Your task to perform on an android device: uninstall "eBay: The shopping marketplace" Image 0: 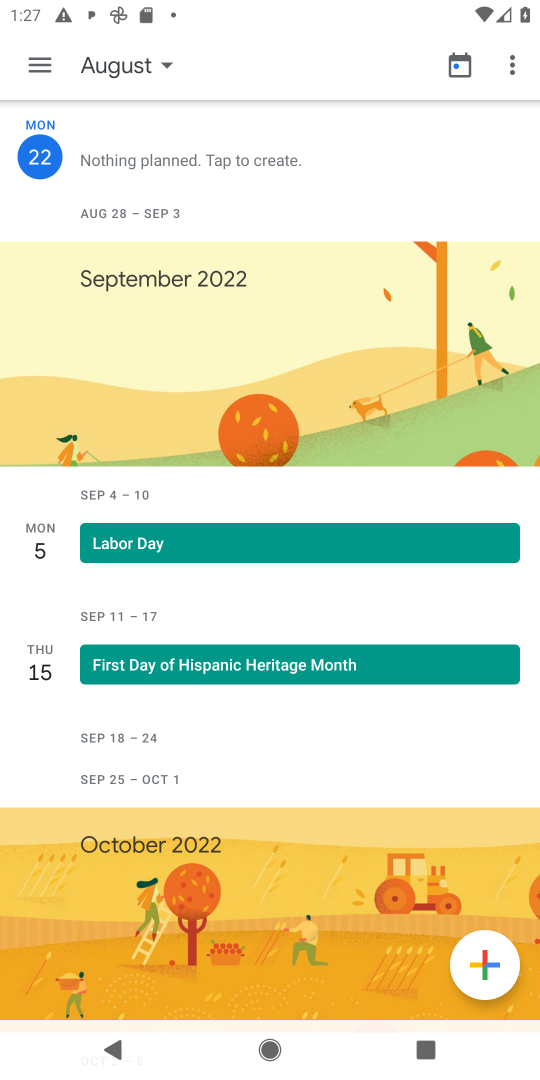
Step 0: press home button
Your task to perform on an android device: uninstall "eBay: The shopping marketplace" Image 1: 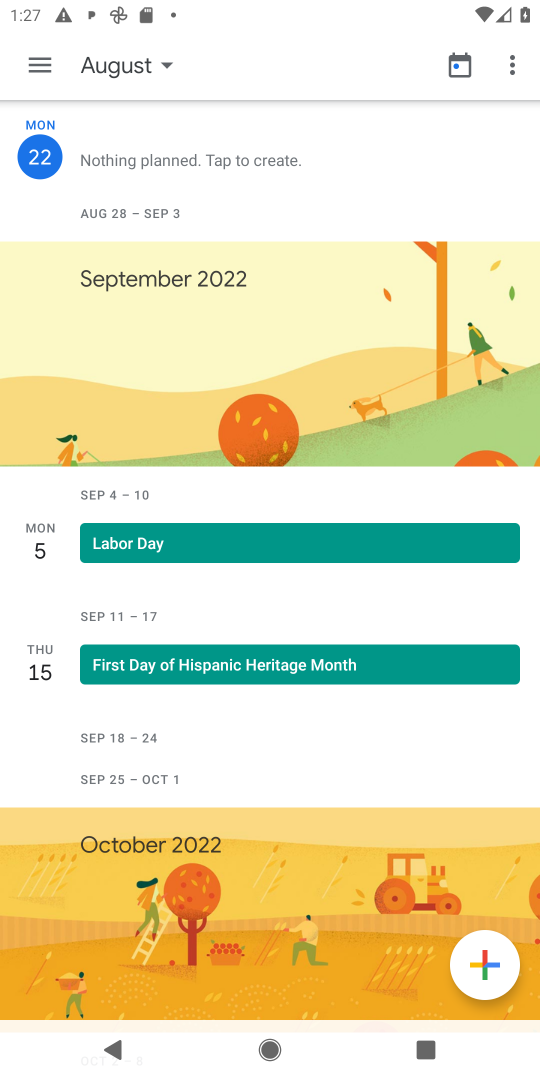
Step 1: press home button
Your task to perform on an android device: uninstall "eBay: The shopping marketplace" Image 2: 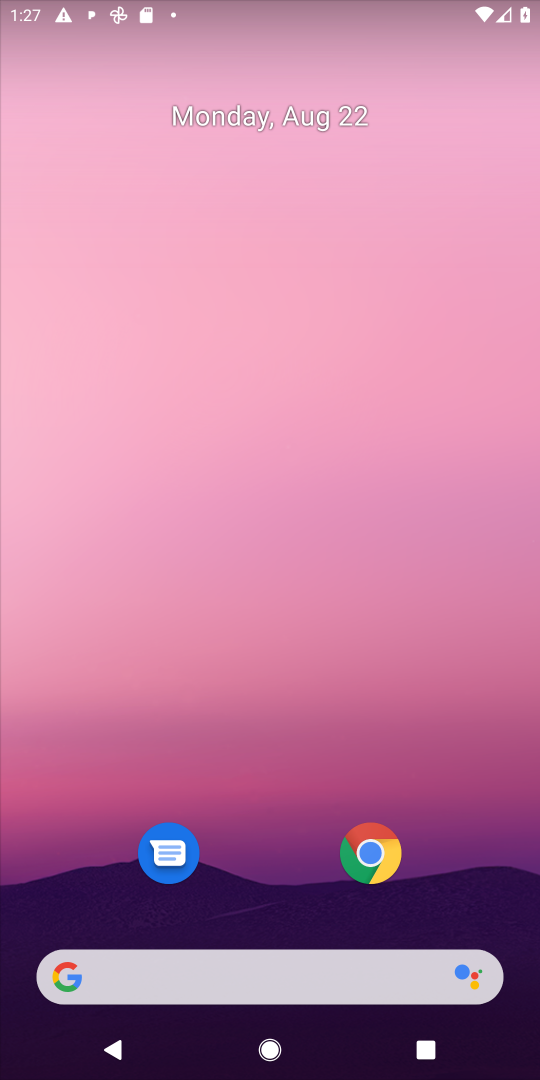
Step 2: drag from (276, 846) to (239, 230)
Your task to perform on an android device: uninstall "eBay: The shopping marketplace" Image 3: 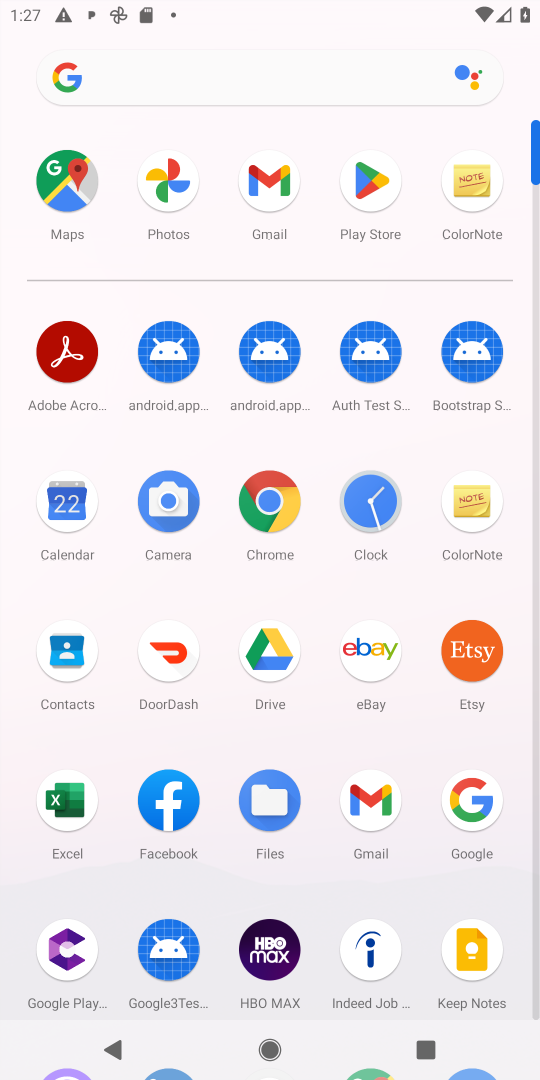
Step 3: click (367, 182)
Your task to perform on an android device: uninstall "eBay: The shopping marketplace" Image 4: 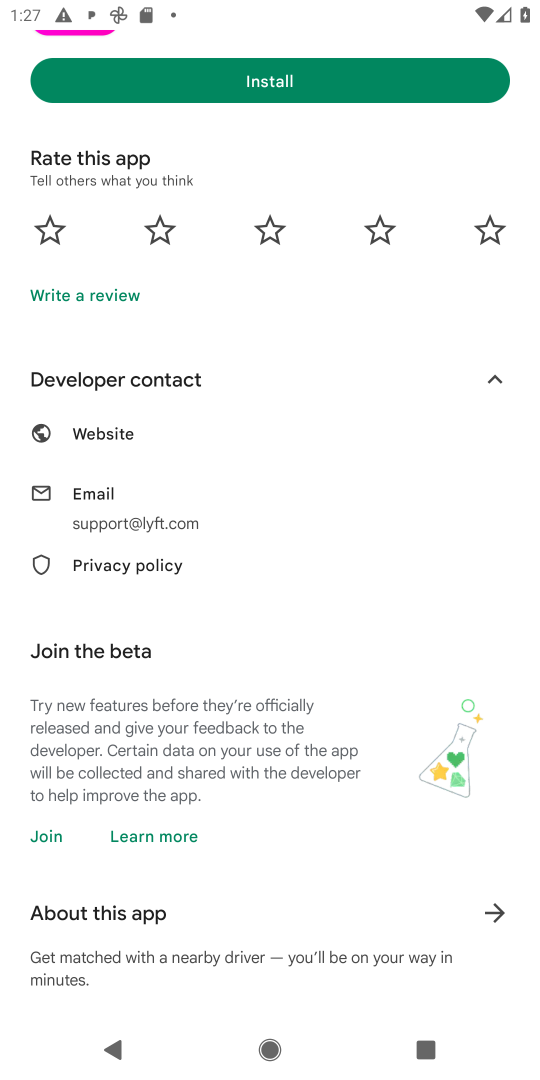
Step 4: drag from (342, 199) to (395, 753)
Your task to perform on an android device: uninstall "eBay: The shopping marketplace" Image 5: 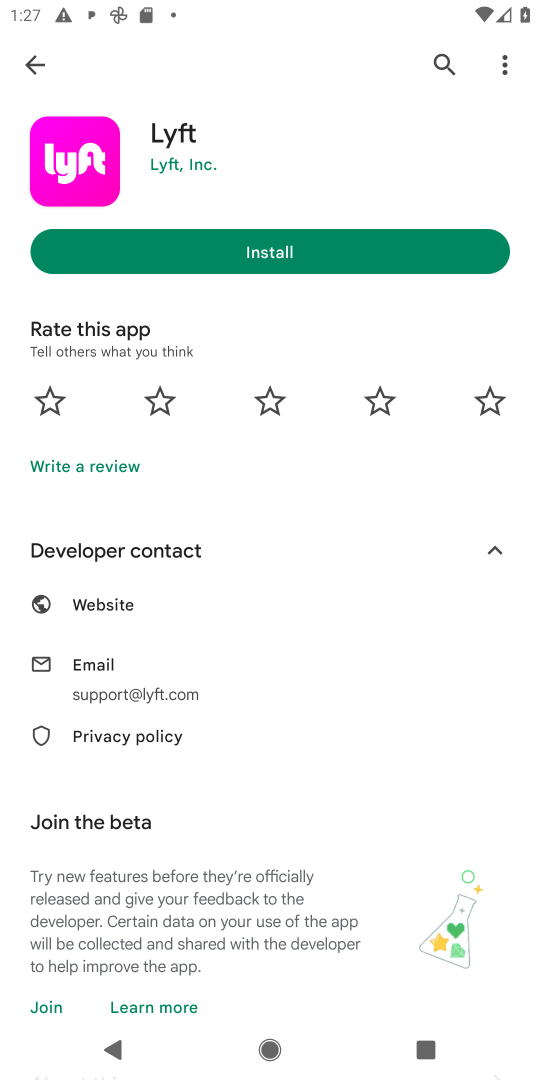
Step 5: click (23, 63)
Your task to perform on an android device: uninstall "eBay: The shopping marketplace" Image 6: 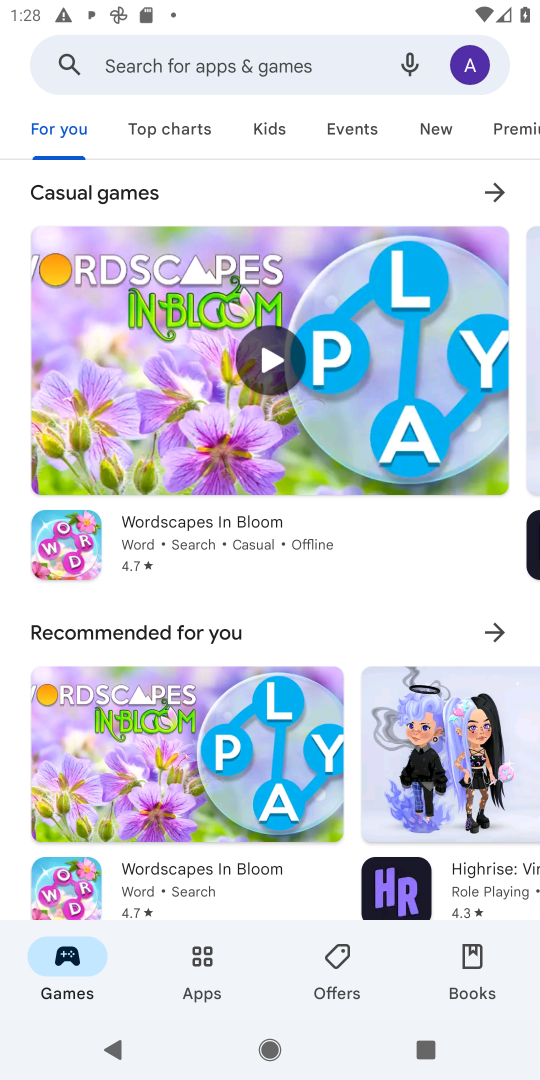
Step 6: click (282, 48)
Your task to perform on an android device: uninstall "eBay: The shopping marketplace" Image 7: 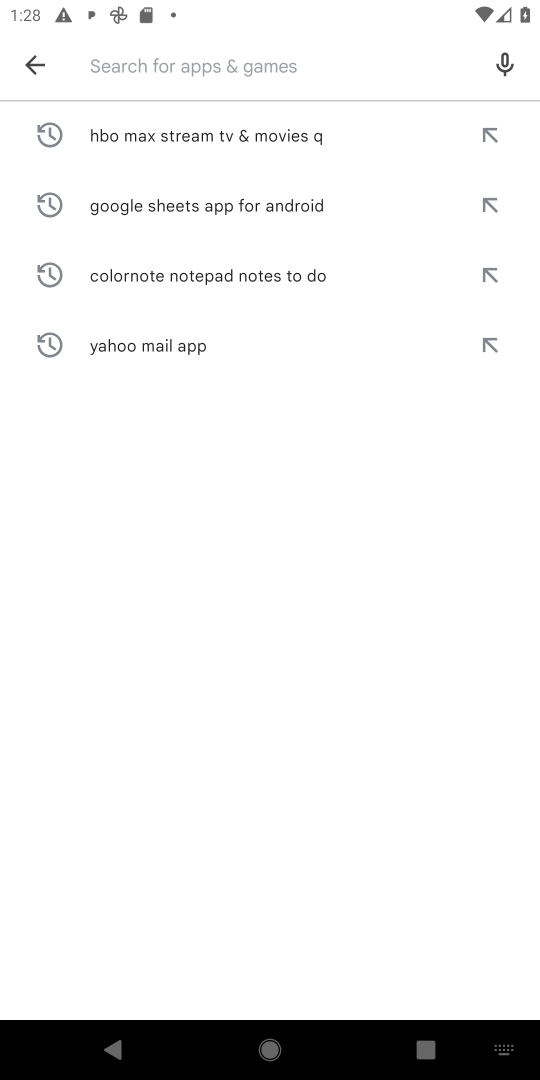
Step 7: type "eBay: "
Your task to perform on an android device: uninstall "eBay: The shopping marketplace" Image 8: 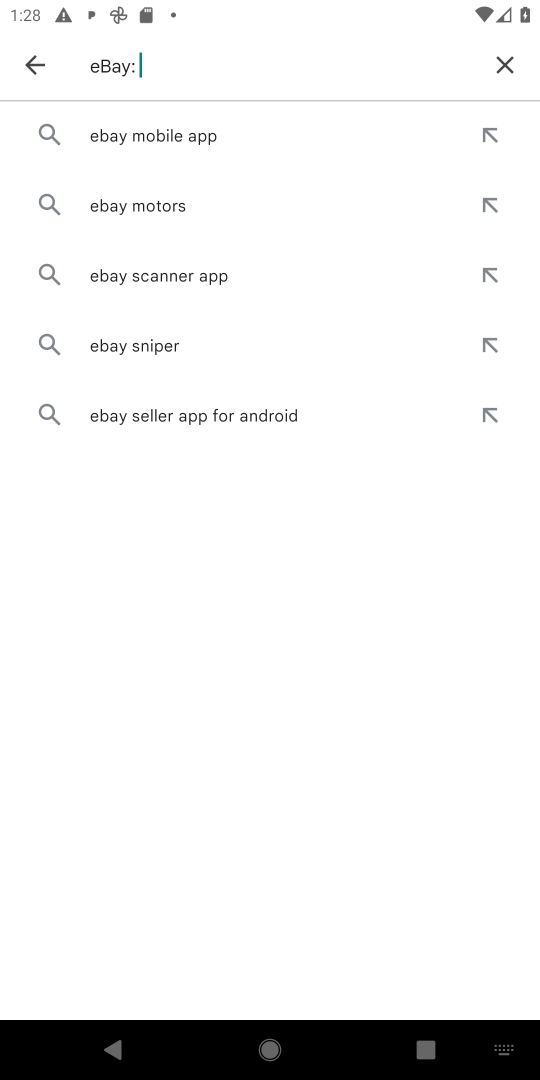
Step 8: click (182, 137)
Your task to perform on an android device: uninstall "eBay: The shopping marketplace" Image 9: 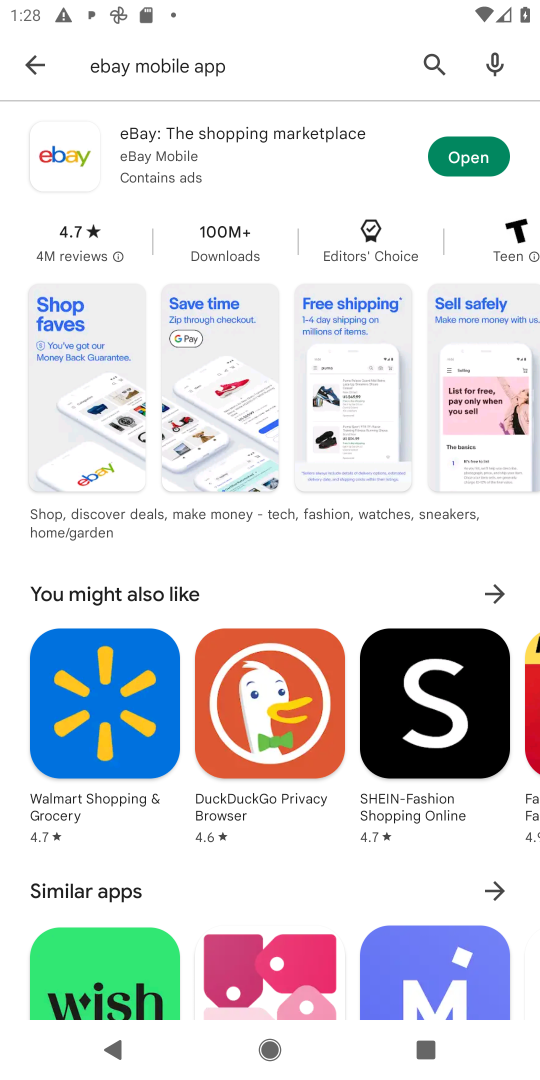
Step 9: click (469, 141)
Your task to perform on an android device: uninstall "eBay: The shopping marketplace" Image 10: 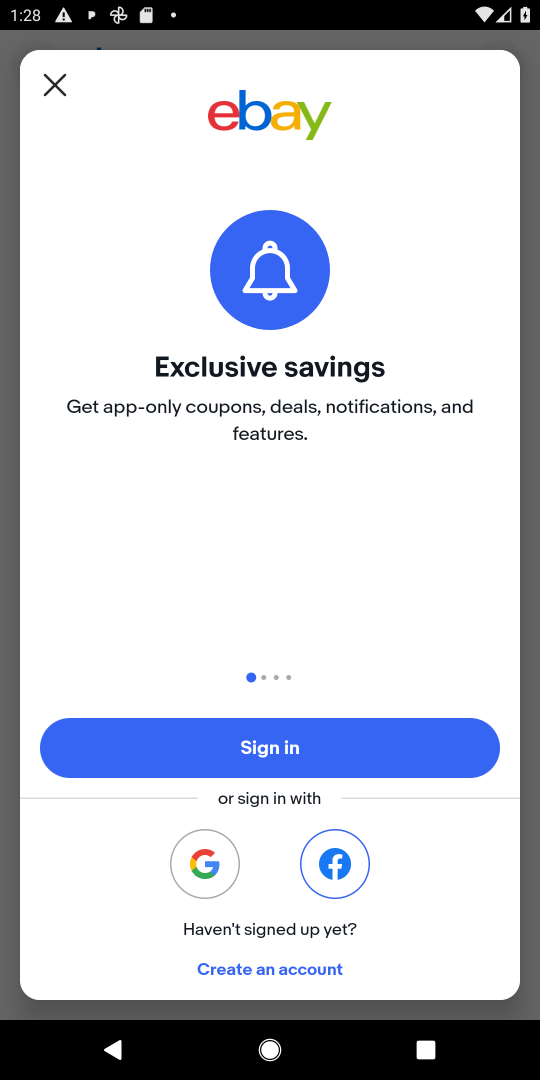
Step 10: press back button
Your task to perform on an android device: uninstall "eBay: The shopping marketplace" Image 11: 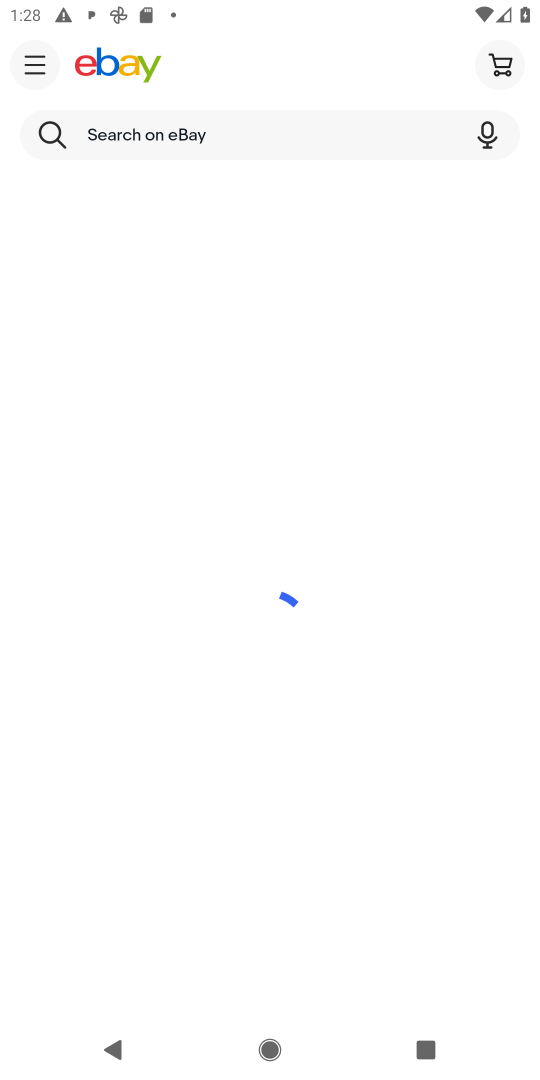
Step 11: press back button
Your task to perform on an android device: uninstall "eBay: The shopping marketplace" Image 12: 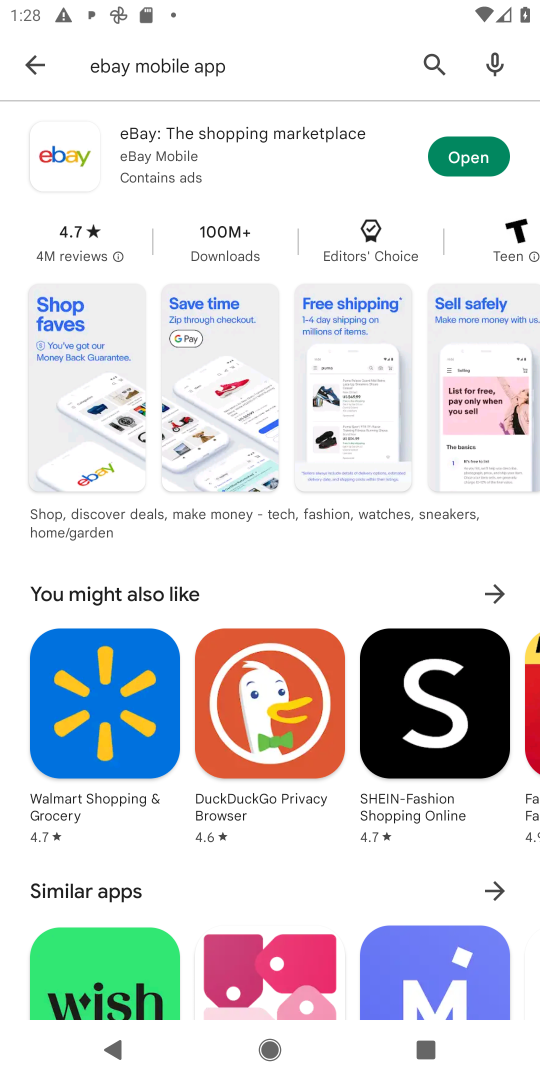
Step 12: click (136, 162)
Your task to perform on an android device: uninstall "eBay: The shopping marketplace" Image 13: 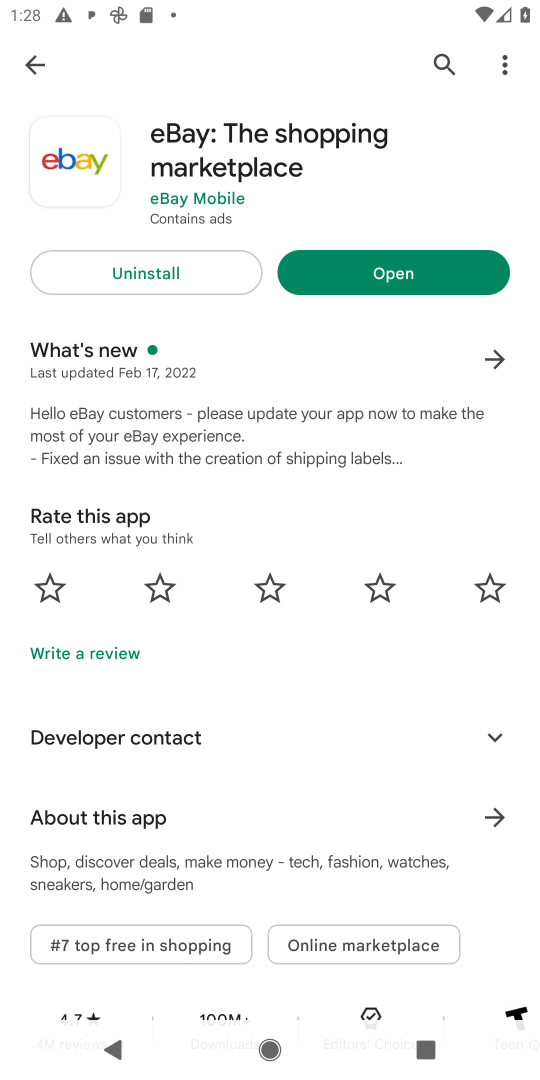
Step 13: click (162, 265)
Your task to perform on an android device: uninstall "eBay: The shopping marketplace" Image 14: 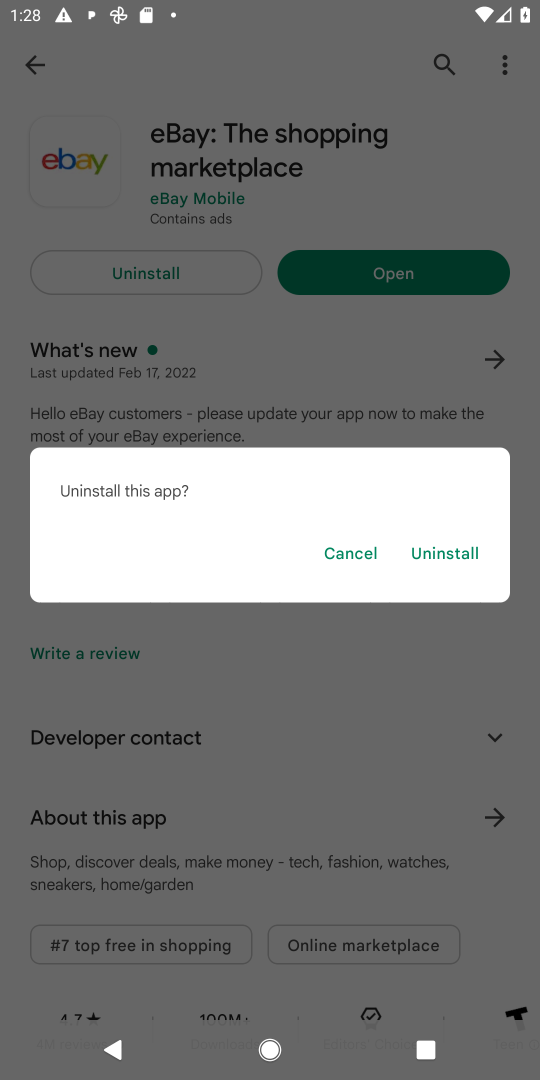
Step 14: click (449, 527)
Your task to perform on an android device: uninstall "eBay: The shopping marketplace" Image 15: 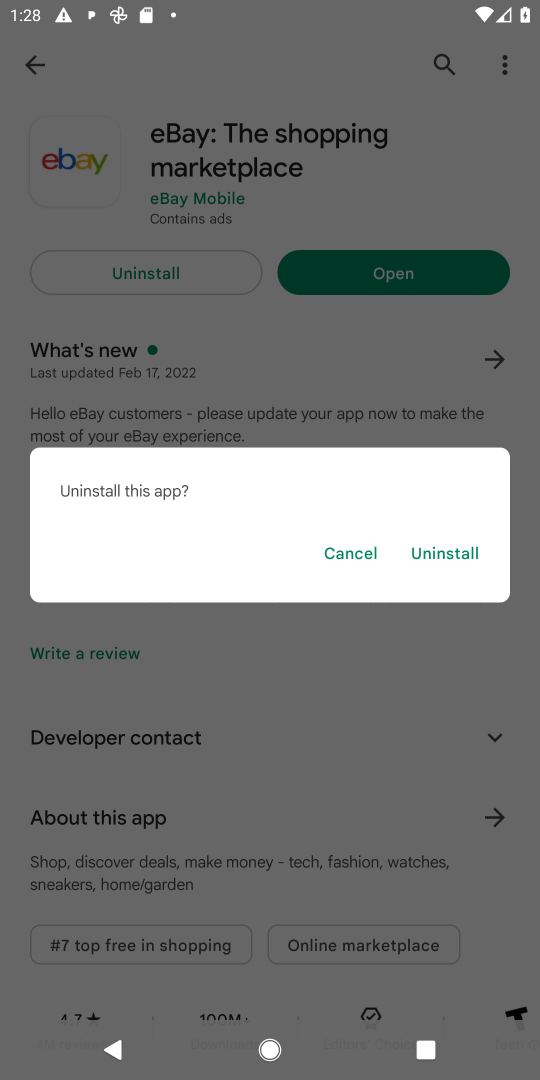
Step 15: click (449, 527)
Your task to perform on an android device: uninstall "eBay: The shopping marketplace" Image 16: 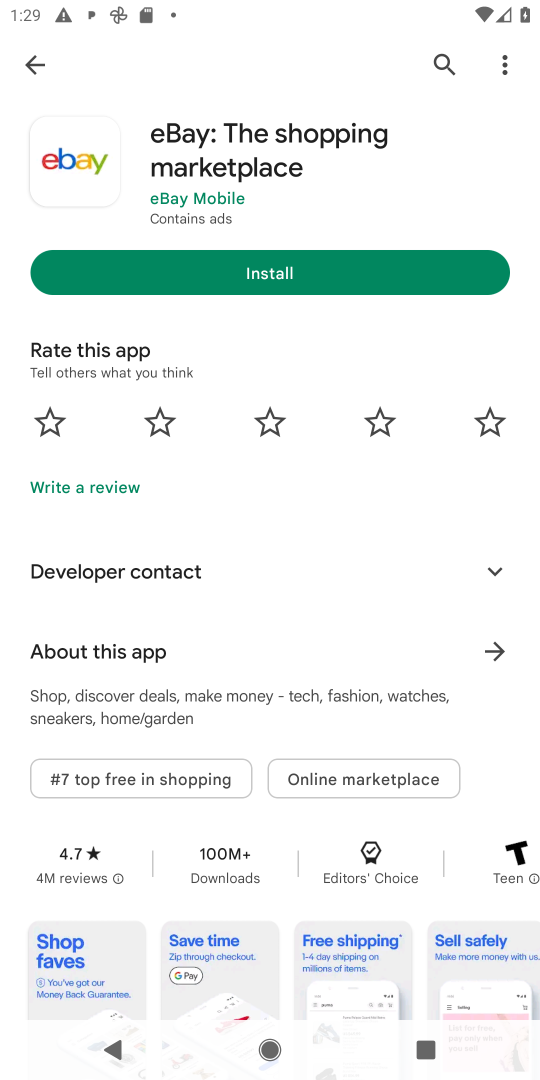
Step 16: task complete